Your task to perform on an android device: Go to wifi settings Image 0: 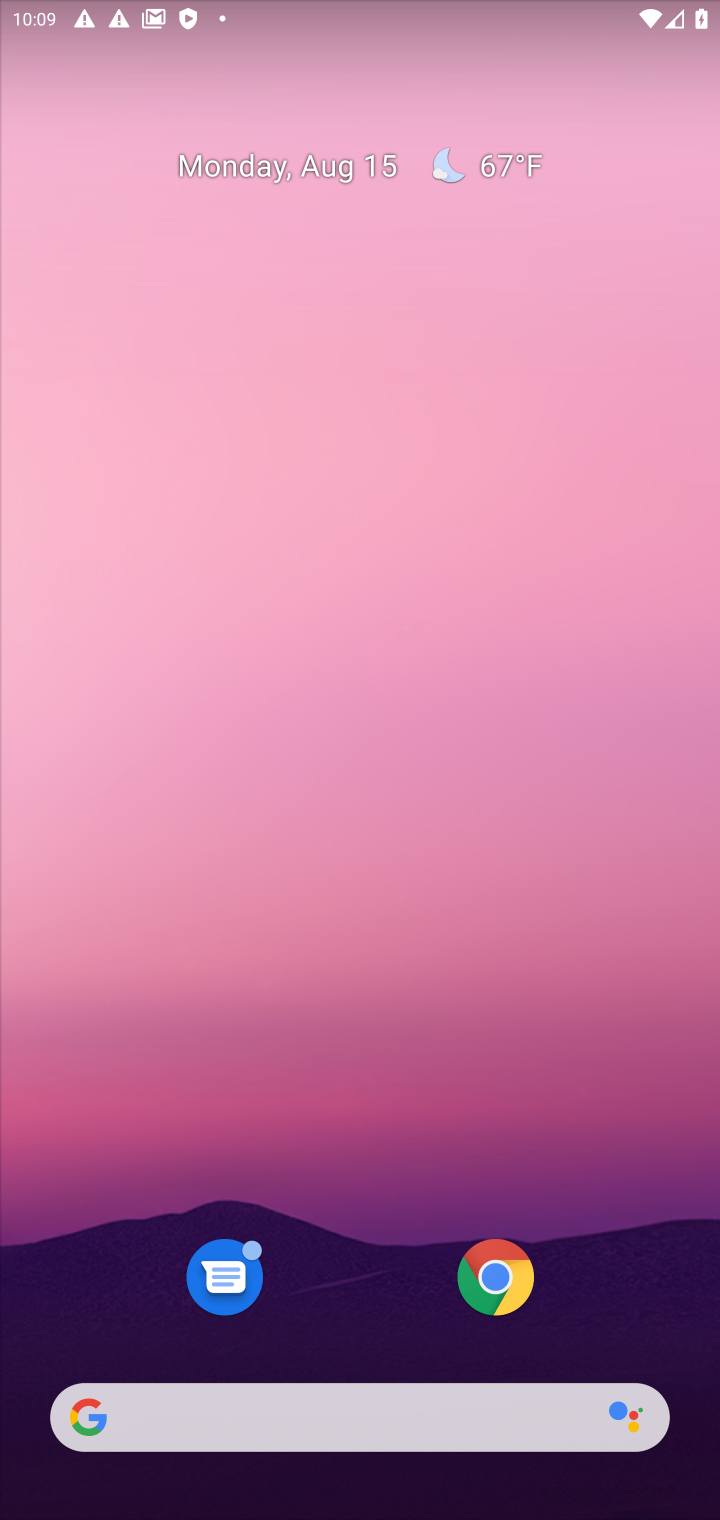
Step 0: drag from (391, 1422) to (388, 139)
Your task to perform on an android device: Go to wifi settings Image 1: 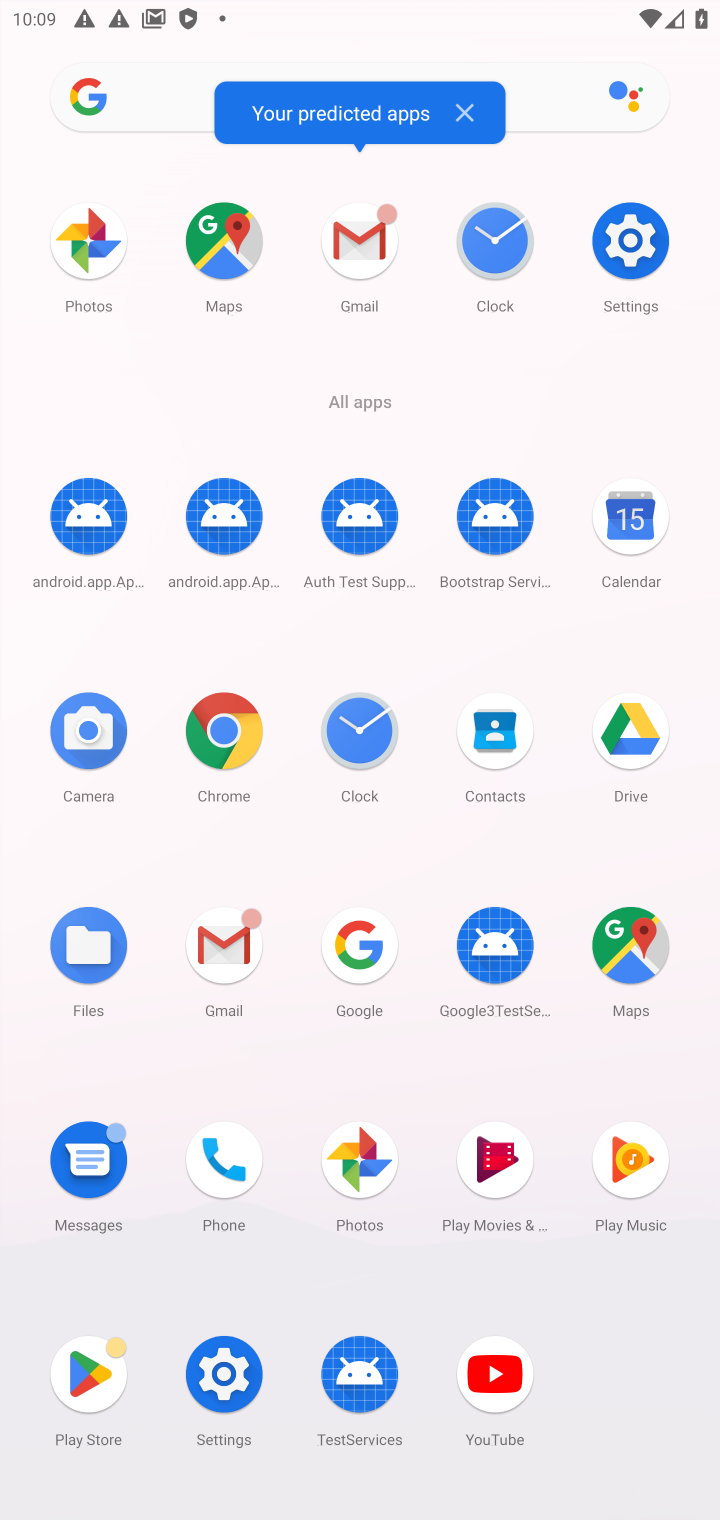
Step 1: click (600, 264)
Your task to perform on an android device: Go to wifi settings Image 2: 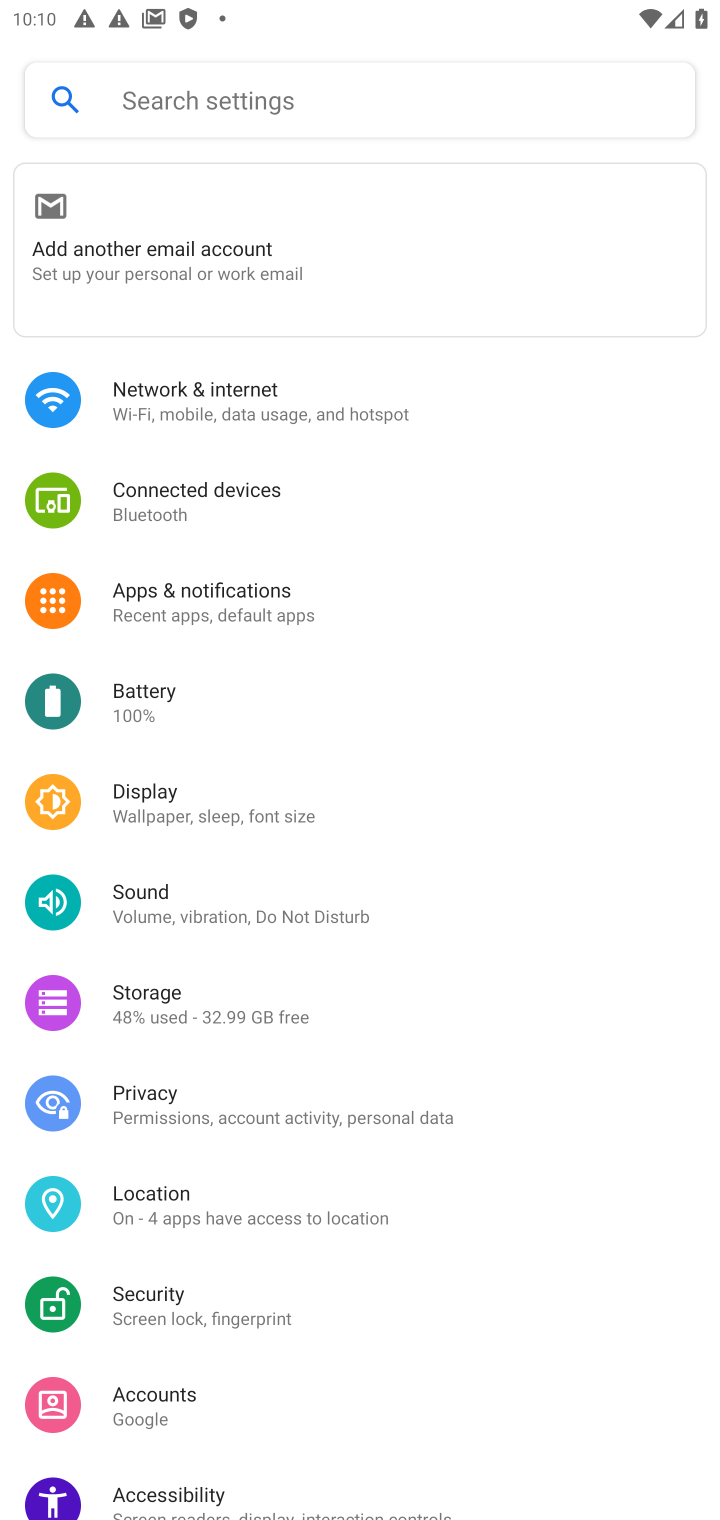
Step 2: click (132, 400)
Your task to perform on an android device: Go to wifi settings Image 3: 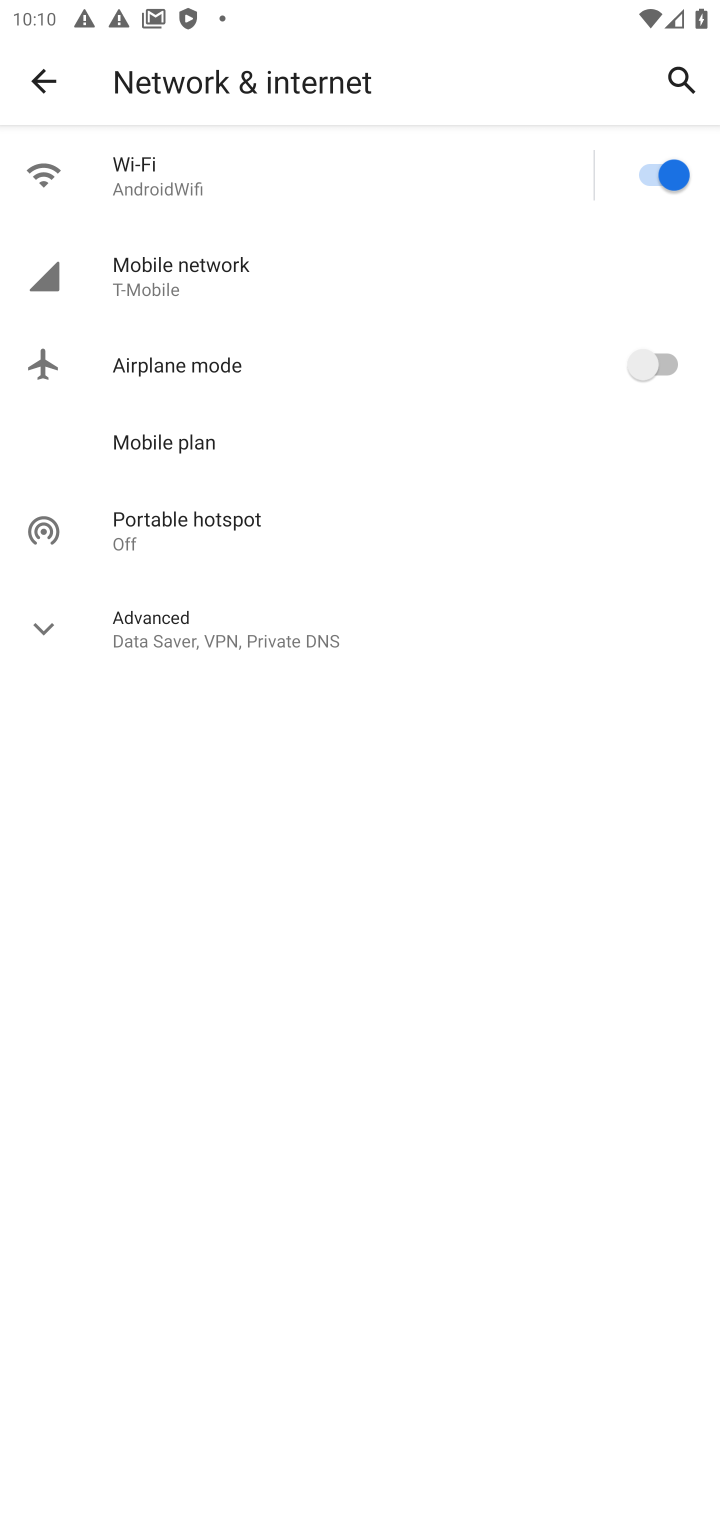
Step 3: click (211, 167)
Your task to perform on an android device: Go to wifi settings Image 4: 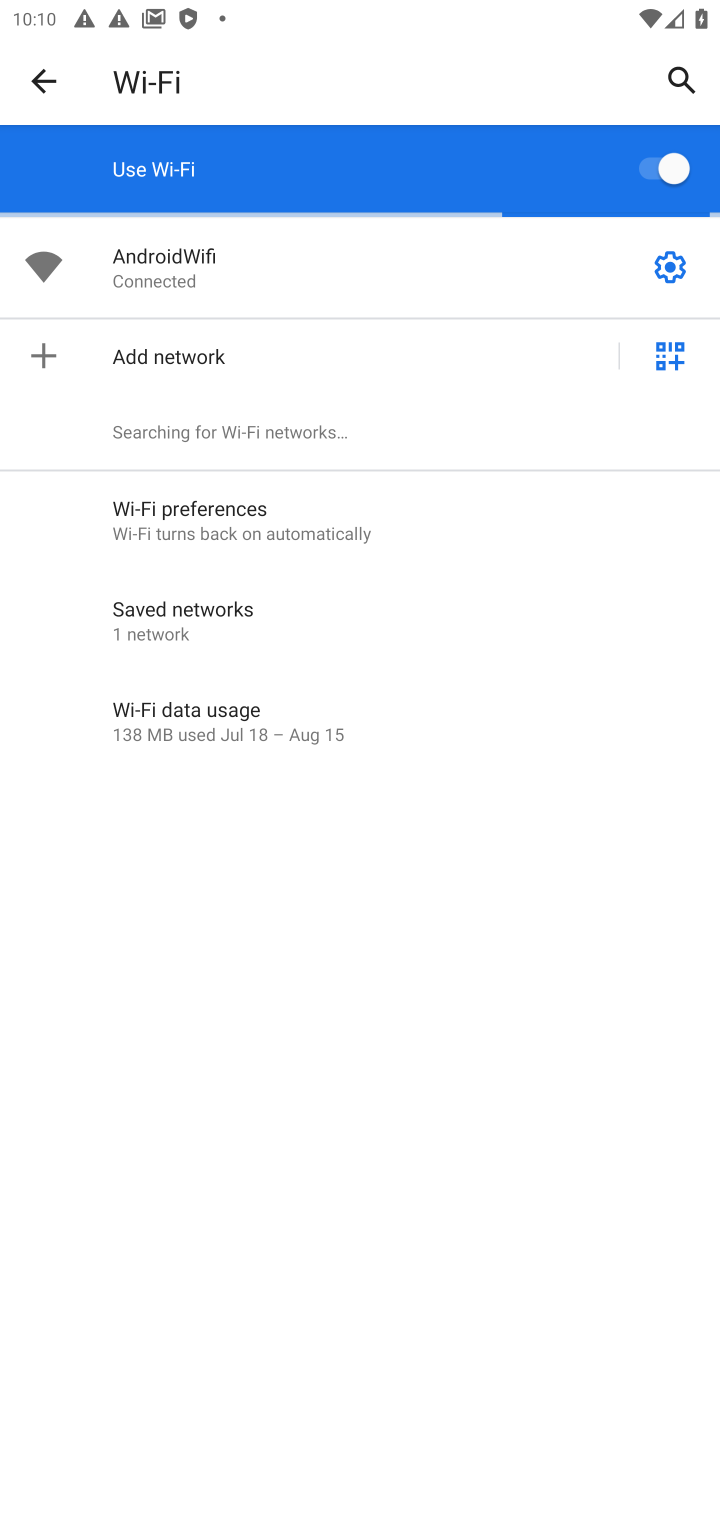
Step 4: task complete